Your task to perform on an android device: toggle airplane mode Image 0: 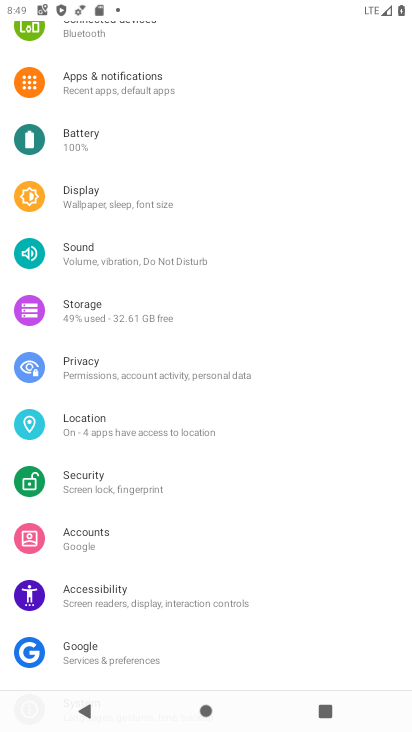
Step 0: drag from (219, 109) to (237, 506)
Your task to perform on an android device: toggle airplane mode Image 1: 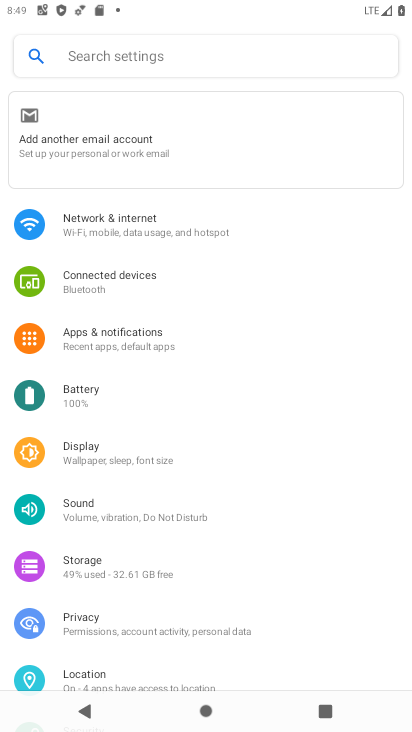
Step 1: click (140, 237)
Your task to perform on an android device: toggle airplane mode Image 2: 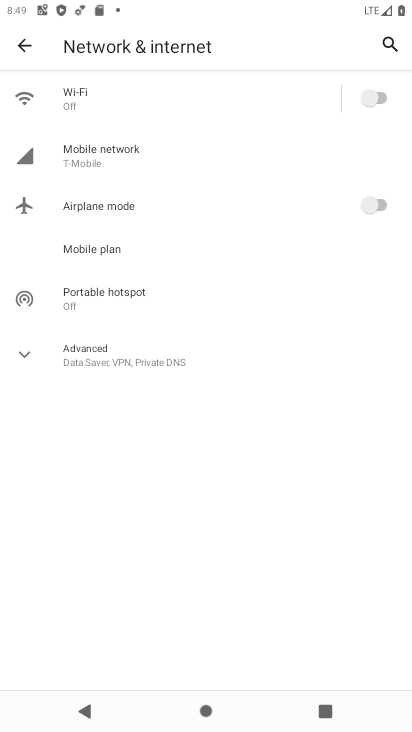
Step 2: click (361, 205)
Your task to perform on an android device: toggle airplane mode Image 3: 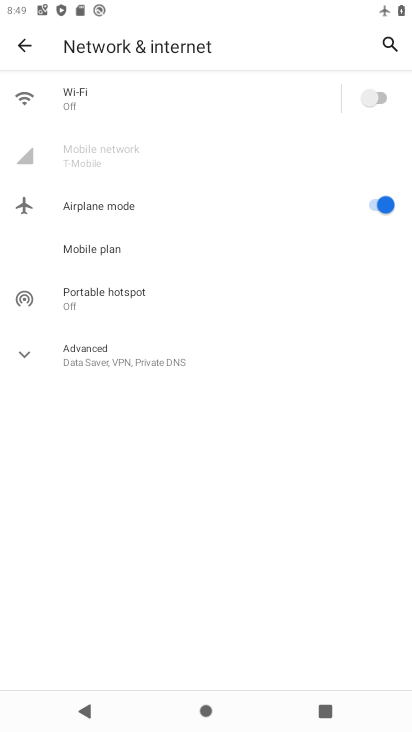
Step 3: task complete